Your task to perform on an android device: turn off airplane mode Image 0: 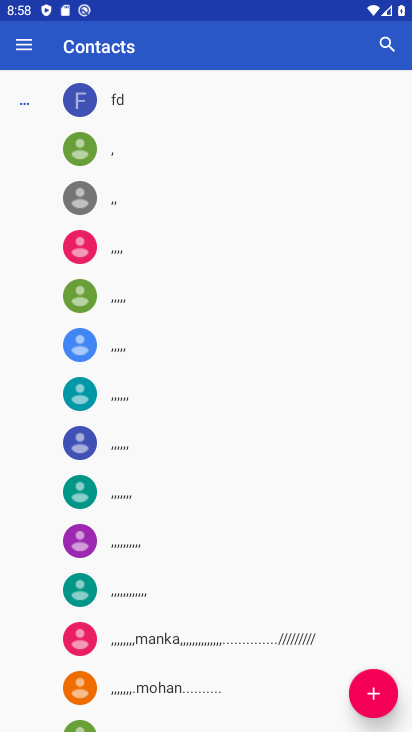
Step 0: press home button
Your task to perform on an android device: turn off airplane mode Image 1: 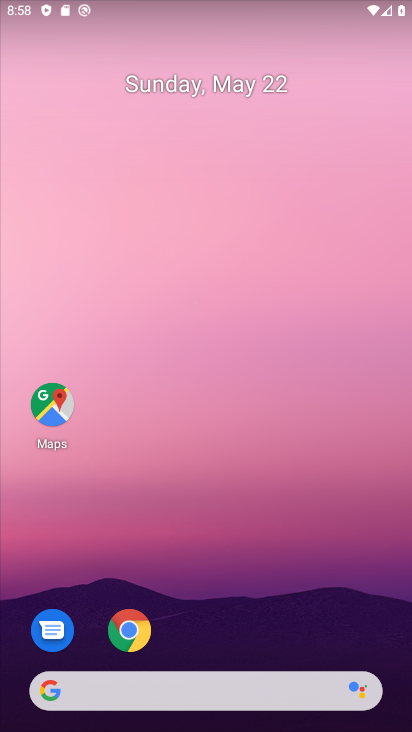
Step 1: drag from (386, 542) to (326, 148)
Your task to perform on an android device: turn off airplane mode Image 2: 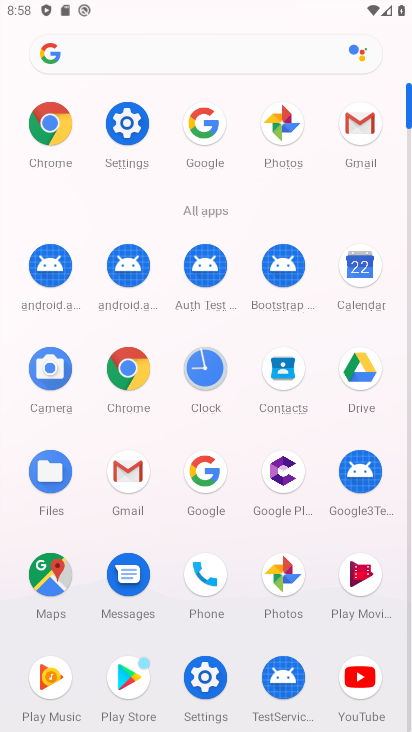
Step 2: click (198, 665)
Your task to perform on an android device: turn off airplane mode Image 3: 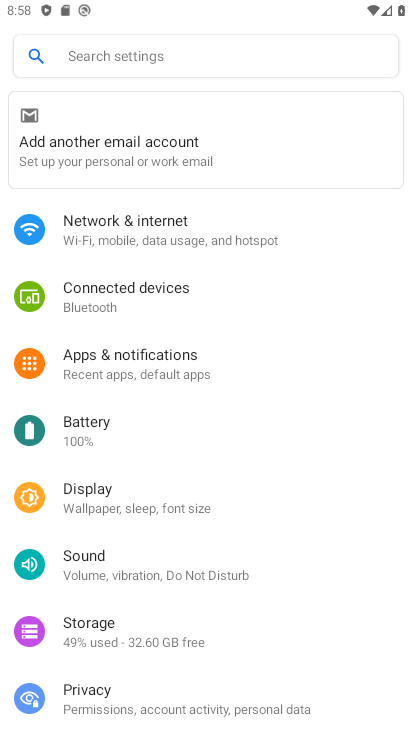
Step 3: click (152, 238)
Your task to perform on an android device: turn off airplane mode Image 4: 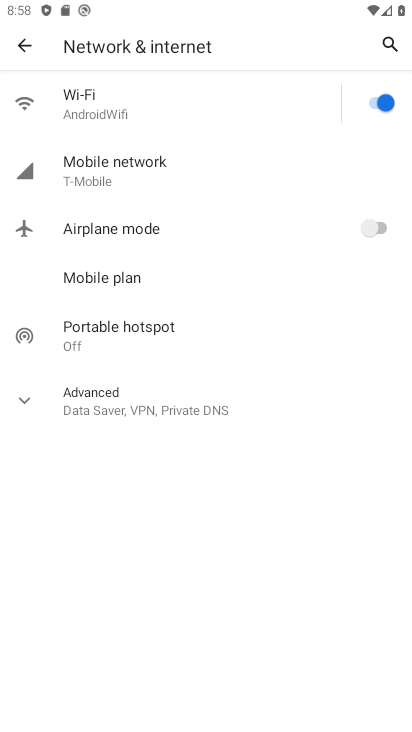
Step 4: task complete